Your task to perform on an android device: set default search engine in the chrome app Image 0: 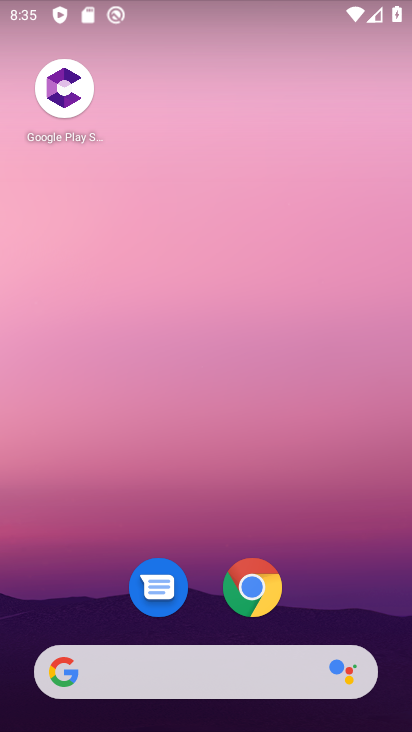
Step 0: click (262, 578)
Your task to perform on an android device: set default search engine in the chrome app Image 1: 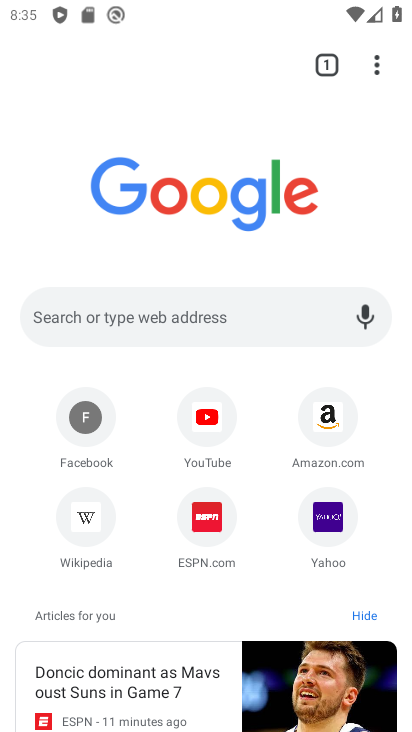
Step 1: drag from (378, 62) to (179, 540)
Your task to perform on an android device: set default search engine in the chrome app Image 2: 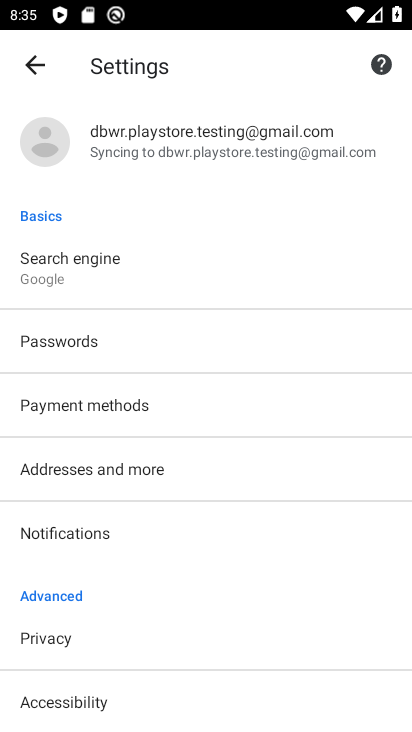
Step 2: click (128, 268)
Your task to perform on an android device: set default search engine in the chrome app Image 3: 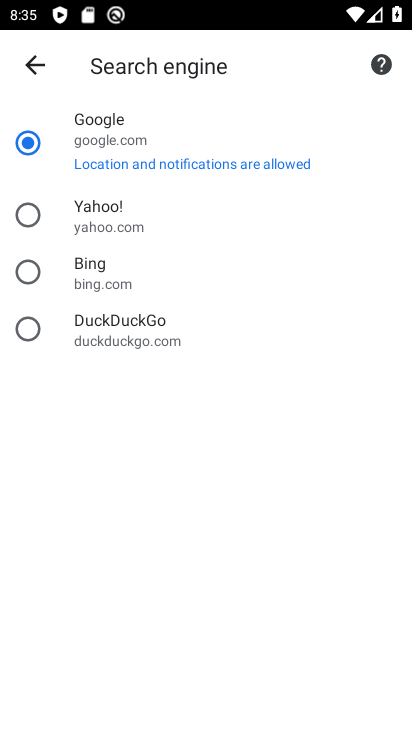
Step 3: task complete